Your task to perform on an android device: toggle javascript in the chrome app Image 0: 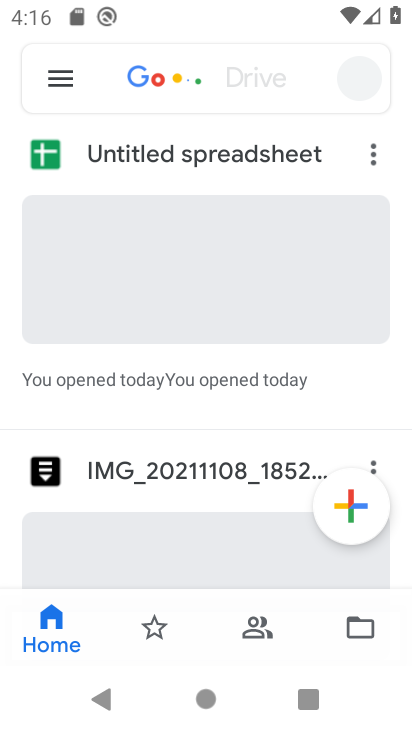
Step 0: press home button
Your task to perform on an android device: toggle javascript in the chrome app Image 1: 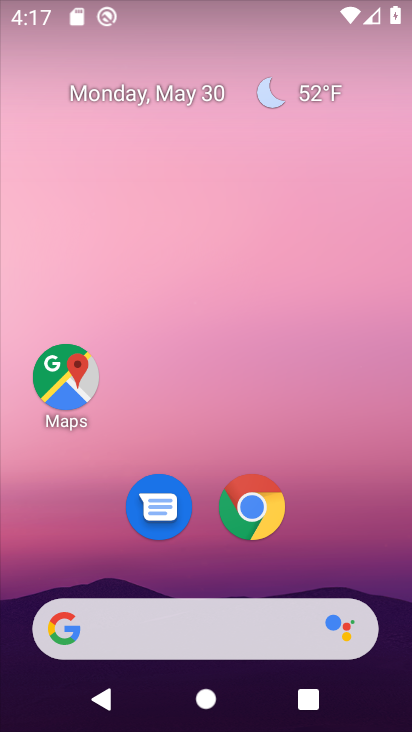
Step 1: click (261, 493)
Your task to perform on an android device: toggle javascript in the chrome app Image 2: 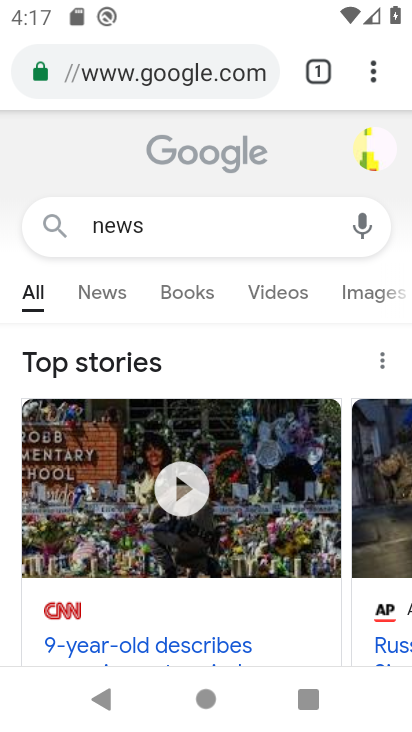
Step 2: drag from (382, 71) to (145, 515)
Your task to perform on an android device: toggle javascript in the chrome app Image 3: 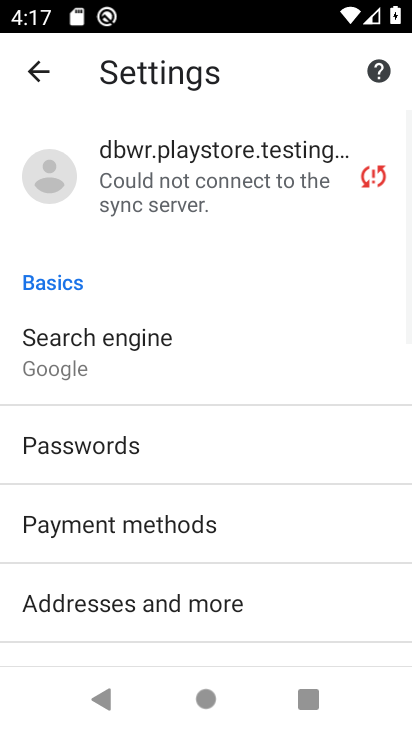
Step 3: drag from (269, 585) to (238, 0)
Your task to perform on an android device: toggle javascript in the chrome app Image 4: 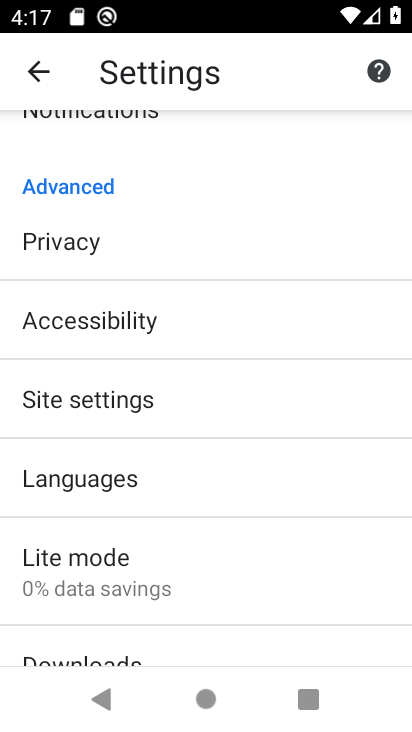
Step 4: click (101, 418)
Your task to perform on an android device: toggle javascript in the chrome app Image 5: 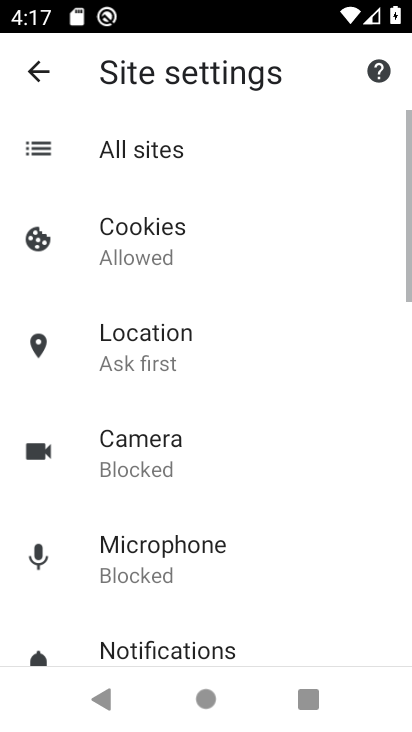
Step 5: drag from (183, 619) to (280, 177)
Your task to perform on an android device: toggle javascript in the chrome app Image 6: 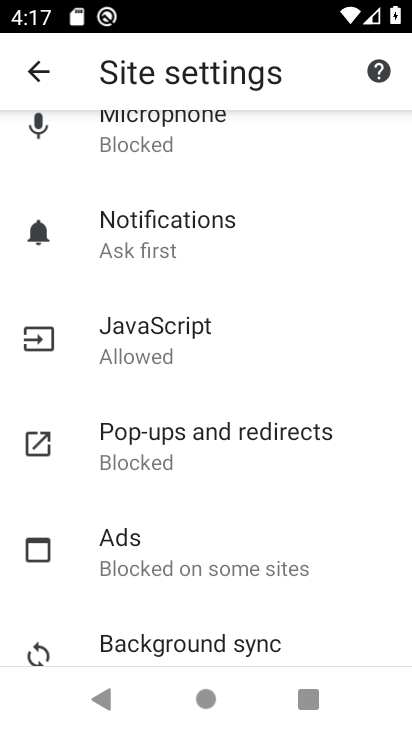
Step 6: click (191, 359)
Your task to perform on an android device: toggle javascript in the chrome app Image 7: 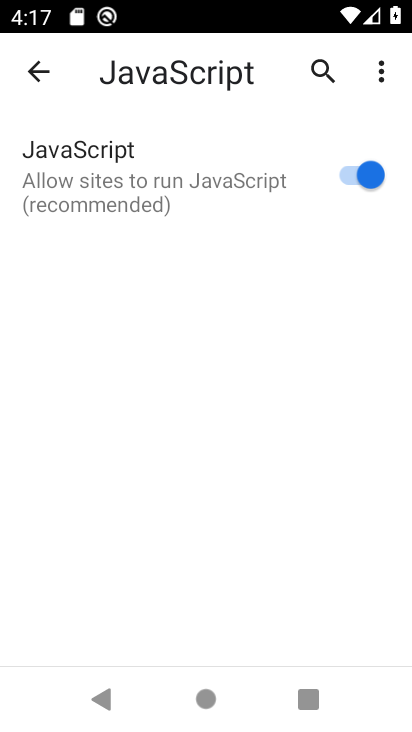
Step 7: click (261, 200)
Your task to perform on an android device: toggle javascript in the chrome app Image 8: 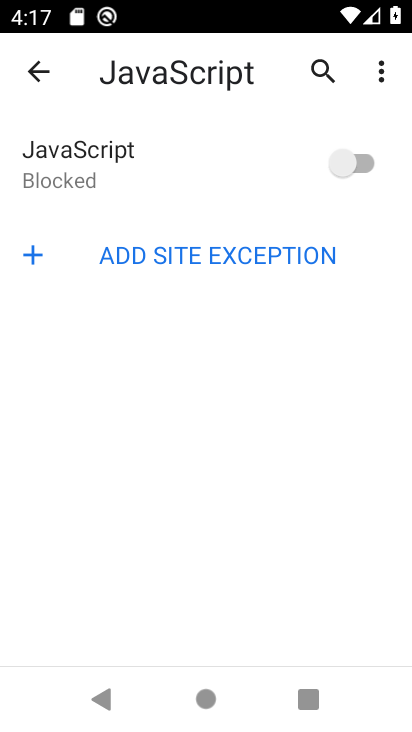
Step 8: task complete